Your task to perform on an android device: set the timer Image 0: 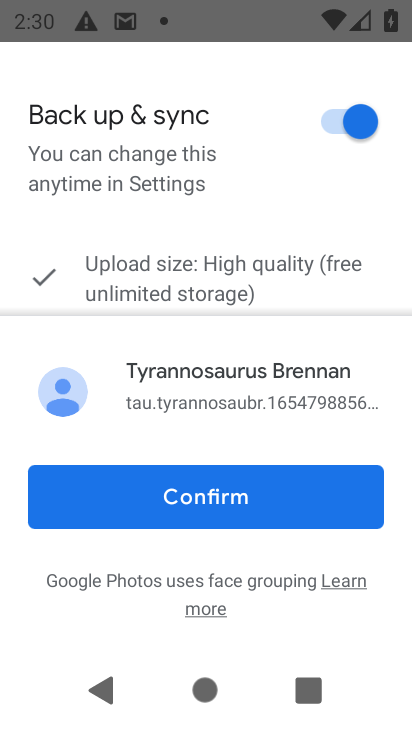
Step 0: press back button
Your task to perform on an android device: set the timer Image 1: 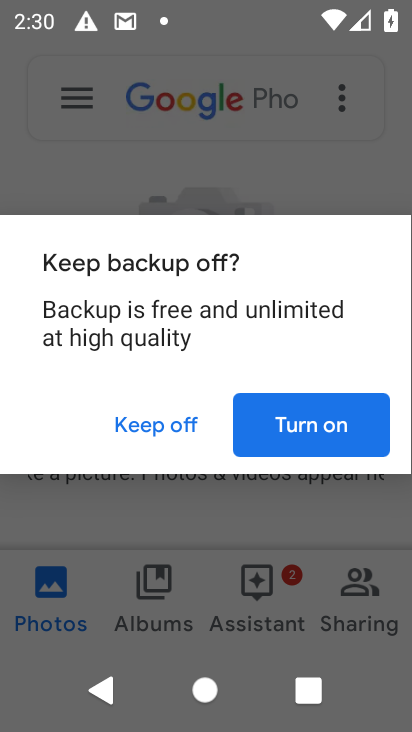
Step 1: click (150, 424)
Your task to perform on an android device: set the timer Image 2: 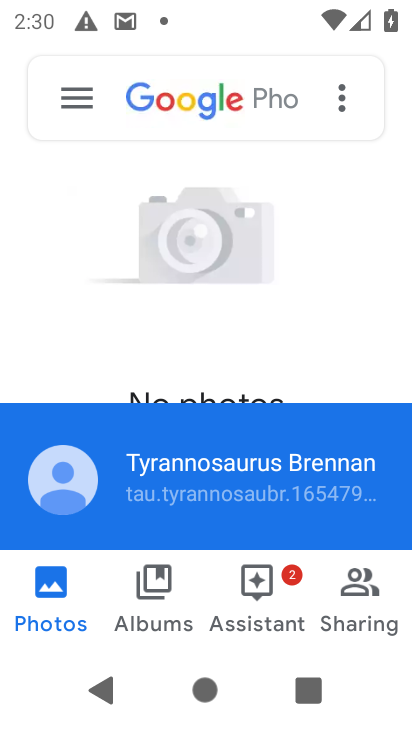
Step 2: press back button
Your task to perform on an android device: set the timer Image 3: 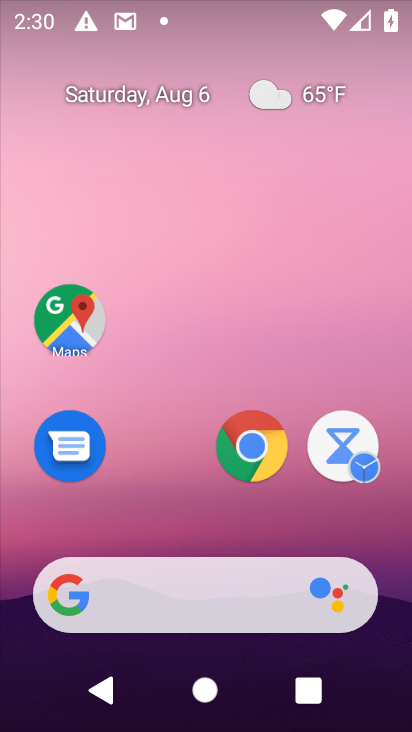
Step 3: drag from (145, 382) to (222, 182)
Your task to perform on an android device: set the timer Image 4: 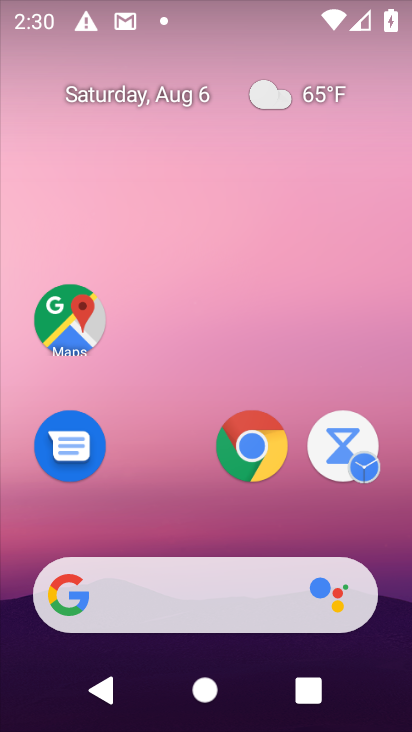
Step 4: drag from (232, 538) to (155, 89)
Your task to perform on an android device: set the timer Image 5: 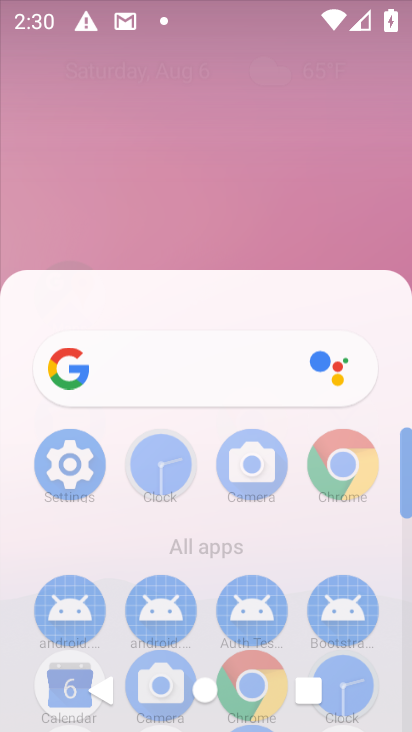
Step 5: drag from (214, 385) to (185, 129)
Your task to perform on an android device: set the timer Image 6: 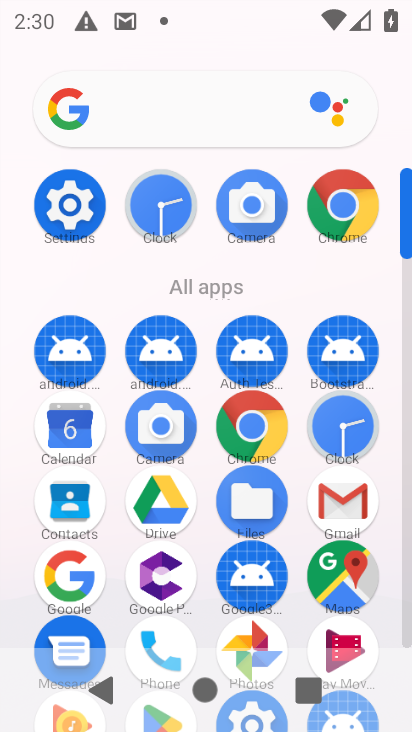
Step 6: click (144, 128)
Your task to perform on an android device: set the timer Image 7: 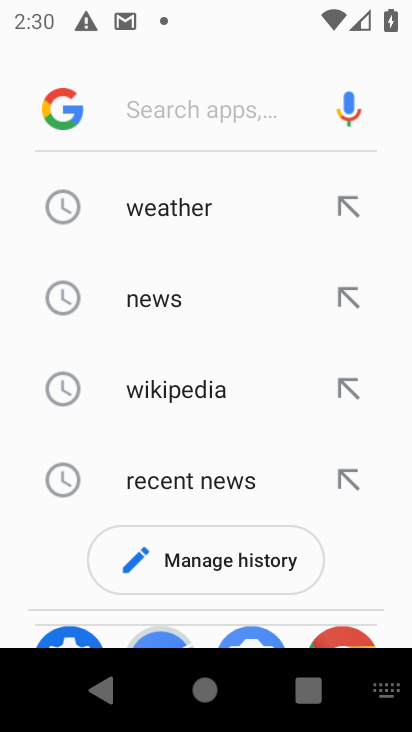
Step 7: press back button
Your task to perform on an android device: set the timer Image 8: 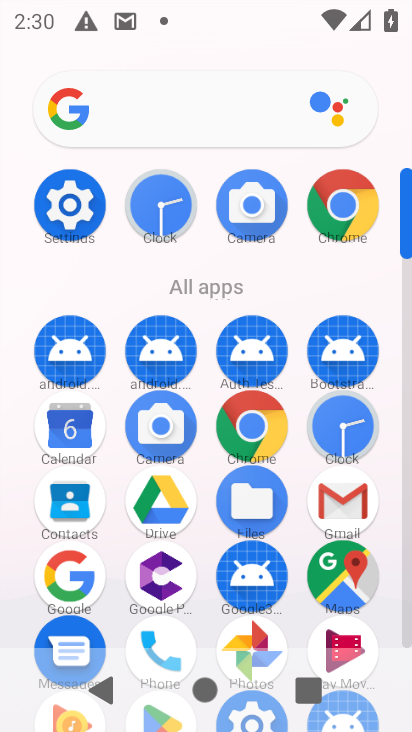
Step 8: click (330, 420)
Your task to perform on an android device: set the timer Image 9: 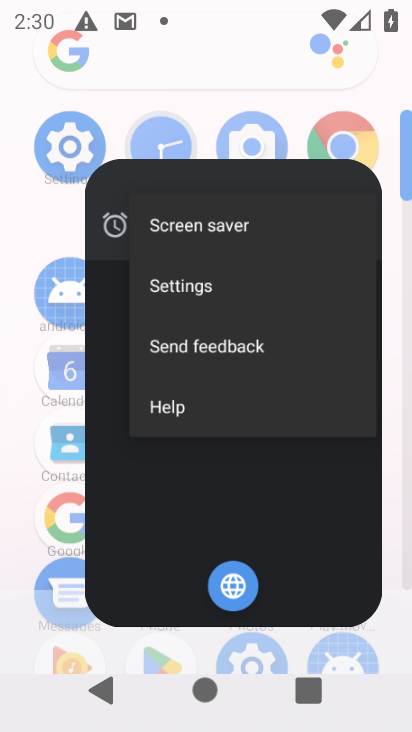
Step 9: click (339, 444)
Your task to perform on an android device: set the timer Image 10: 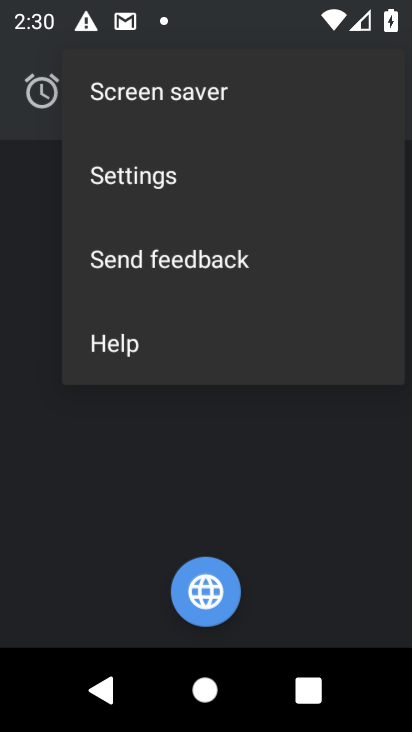
Step 10: click (339, 444)
Your task to perform on an android device: set the timer Image 11: 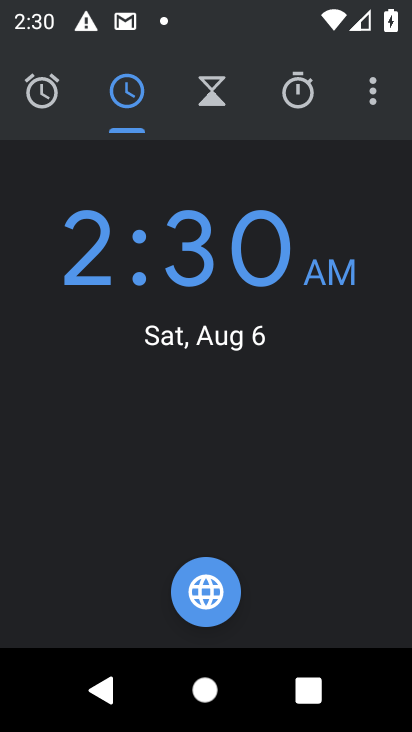
Step 11: click (210, 92)
Your task to perform on an android device: set the timer Image 12: 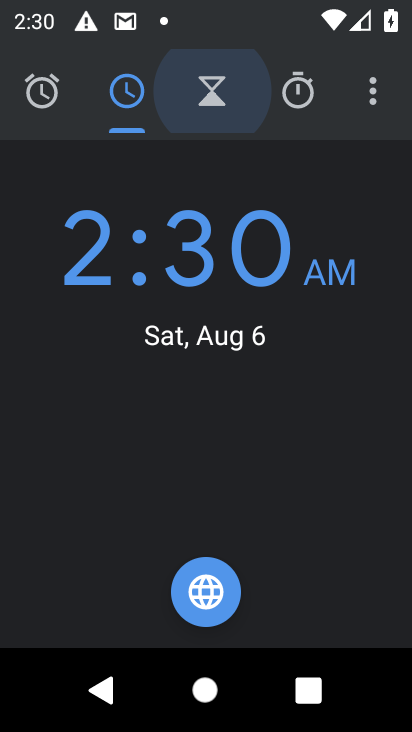
Step 12: click (210, 92)
Your task to perform on an android device: set the timer Image 13: 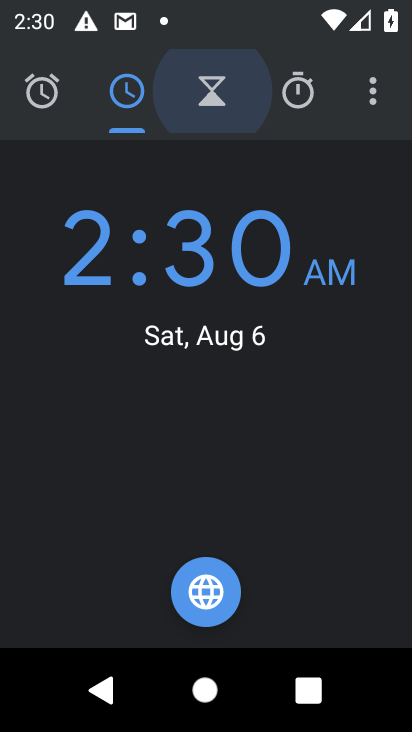
Step 13: click (210, 92)
Your task to perform on an android device: set the timer Image 14: 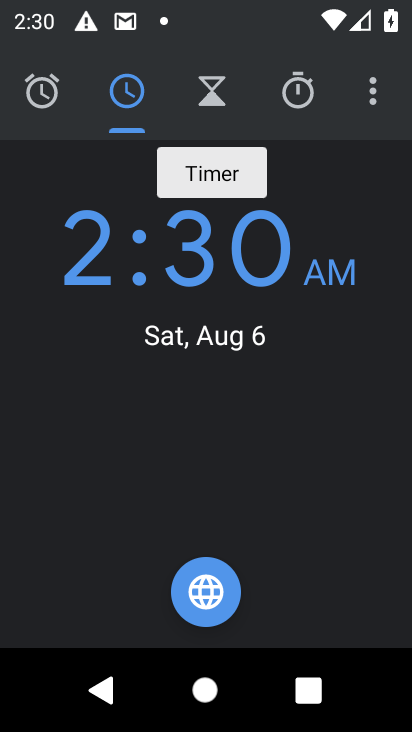
Step 14: click (210, 92)
Your task to perform on an android device: set the timer Image 15: 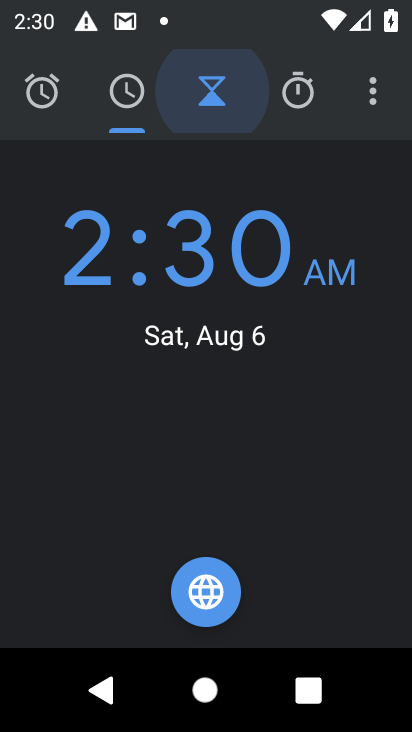
Step 15: click (210, 92)
Your task to perform on an android device: set the timer Image 16: 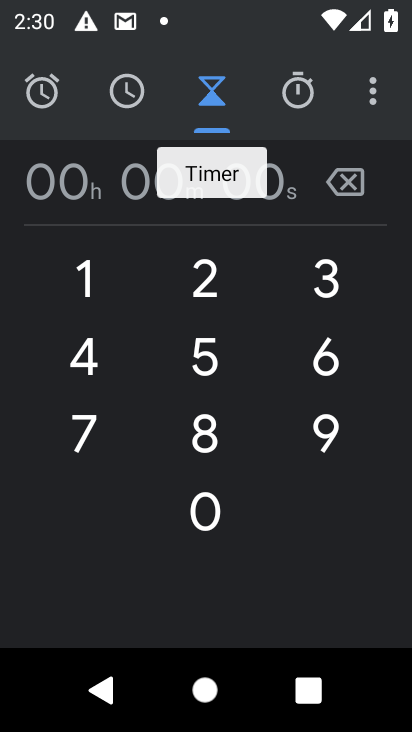
Step 16: click (204, 356)
Your task to perform on an android device: set the timer Image 17: 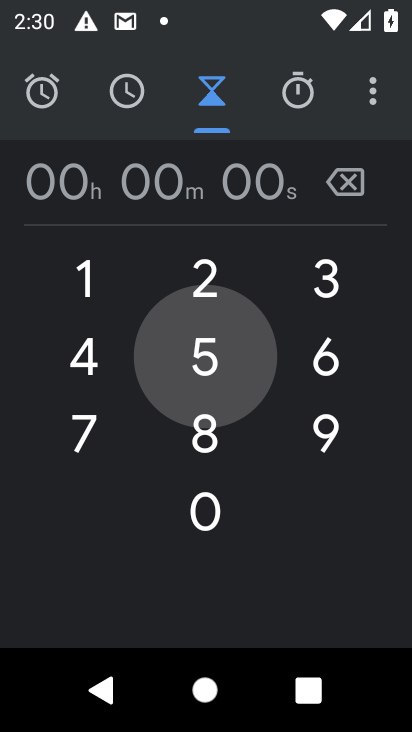
Step 17: click (207, 362)
Your task to perform on an android device: set the timer Image 18: 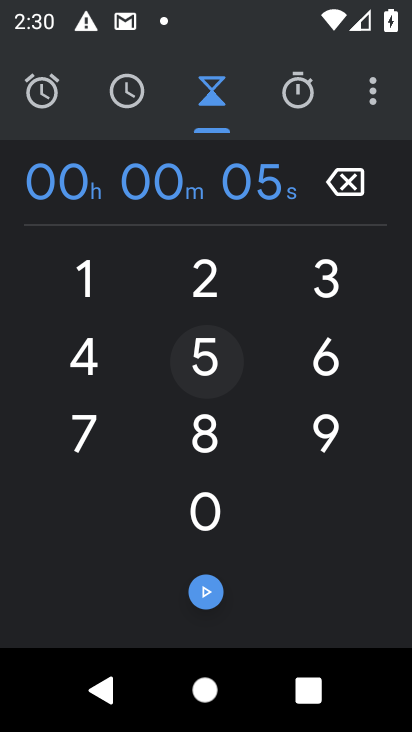
Step 18: click (208, 363)
Your task to perform on an android device: set the timer Image 19: 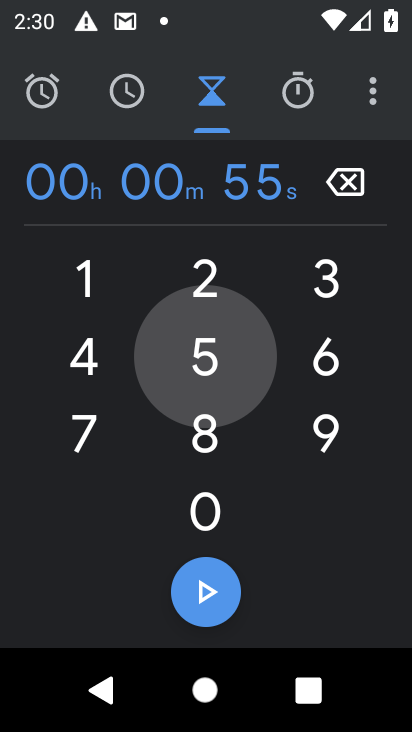
Step 19: click (209, 364)
Your task to perform on an android device: set the timer Image 20: 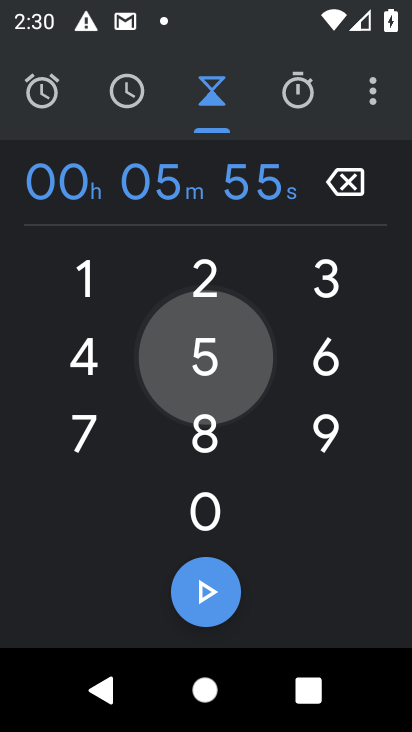
Step 20: click (209, 364)
Your task to perform on an android device: set the timer Image 21: 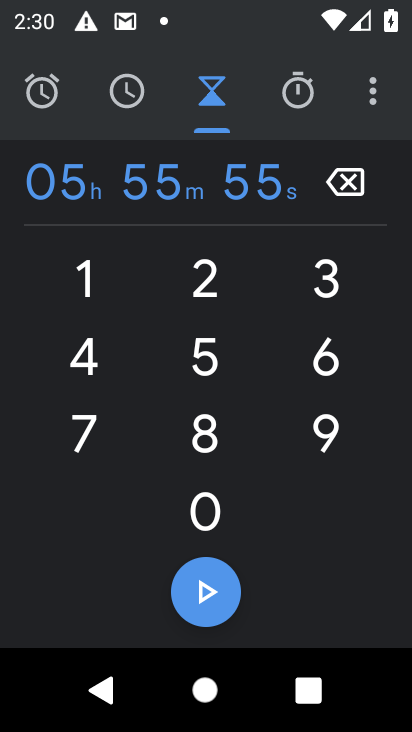
Step 21: click (207, 589)
Your task to perform on an android device: set the timer Image 22: 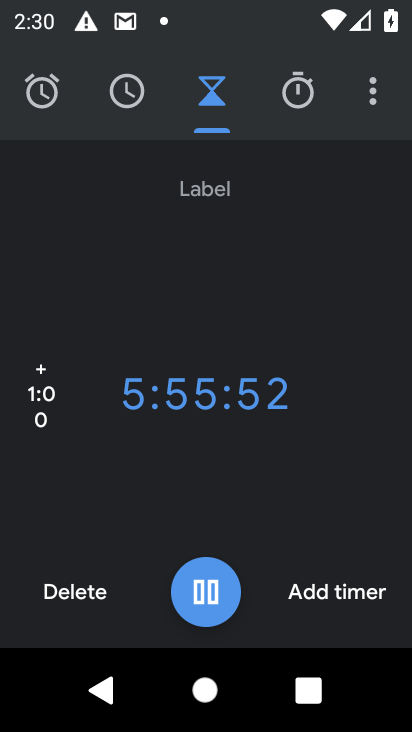
Step 22: click (203, 595)
Your task to perform on an android device: set the timer Image 23: 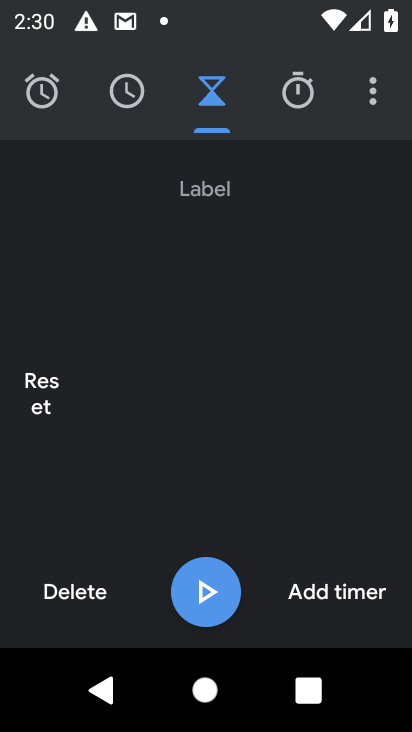
Step 23: task complete